Your task to perform on an android device: set the stopwatch Image 0: 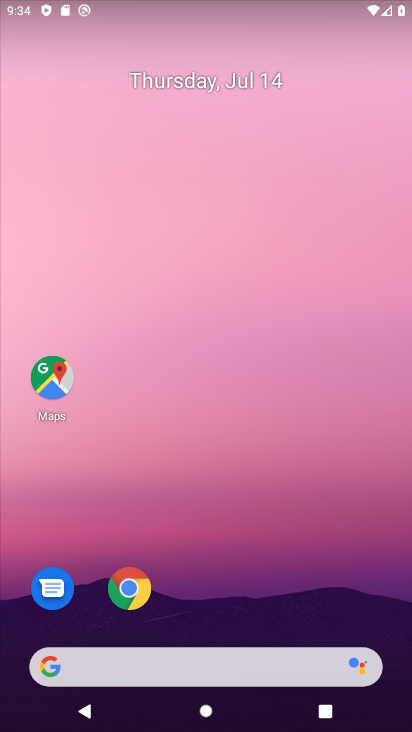
Step 0: drag from (166, 646) to (166, 294)
Your task to perform on an android device: set the stopwatch Image 1: 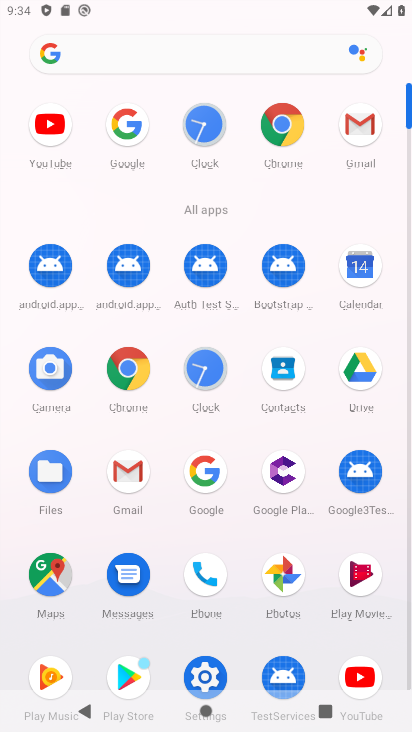
Step 1: click (207, 131)
Your task to perform on an android device: set the stopwatch Image 2: 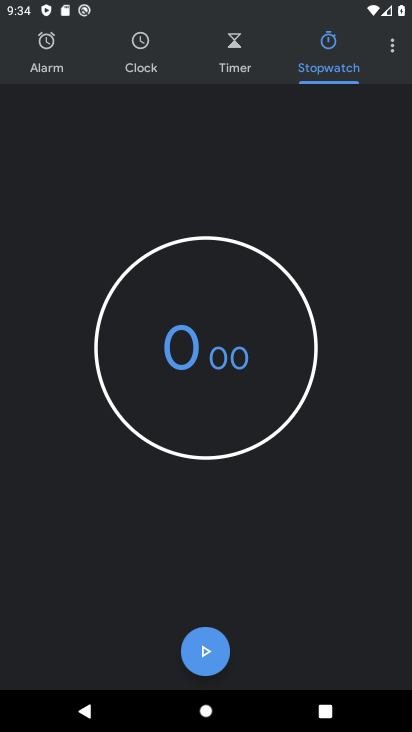
Step 2: click (205, 660)
Your task to perform on an android device: set the stopwatch Image 3: 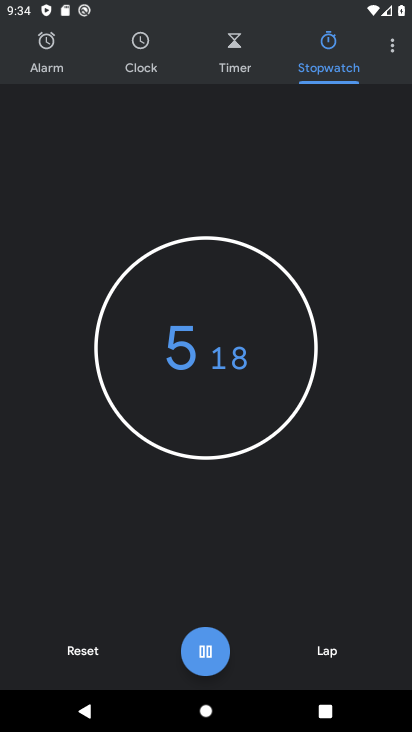
Step 3: click (205, 652)
Your task to perform on an android device: set the stopwatch Image 4: 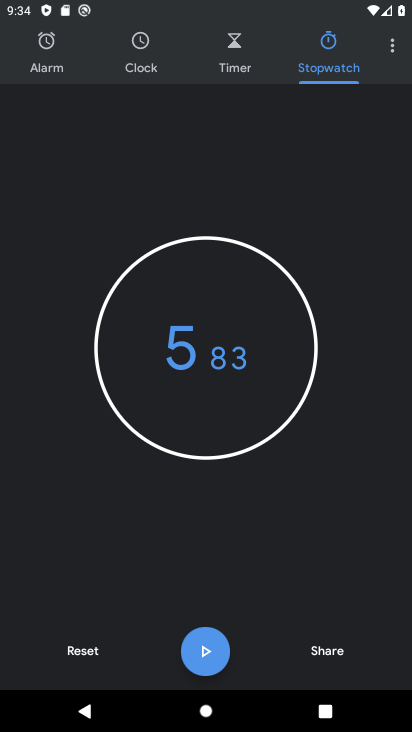
Step 4: task complete